Your task to perform on an android device: search for starred emails in the gmail app Image 0: 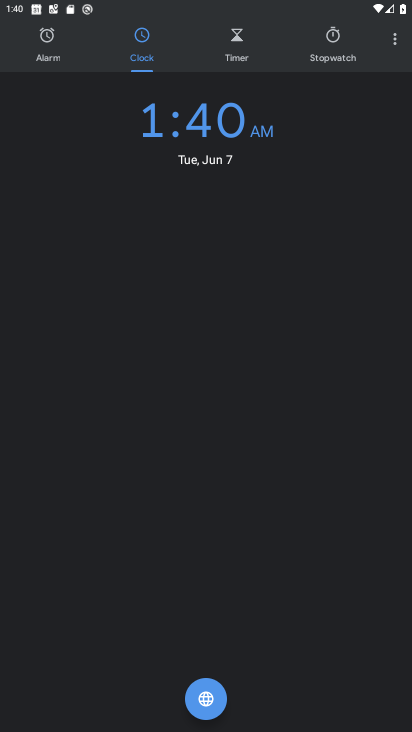
Step 0: press home button
Your task to perform on an android device: search for starred emails in the gmail app Image 1: 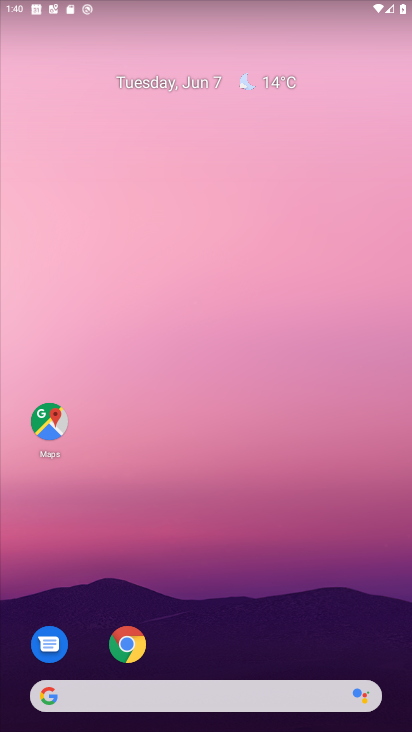
Step 1: drag from (233, 625) to (273, 41)
Your task to perform on an android device: search for starred emails in the gmail app Image 2: 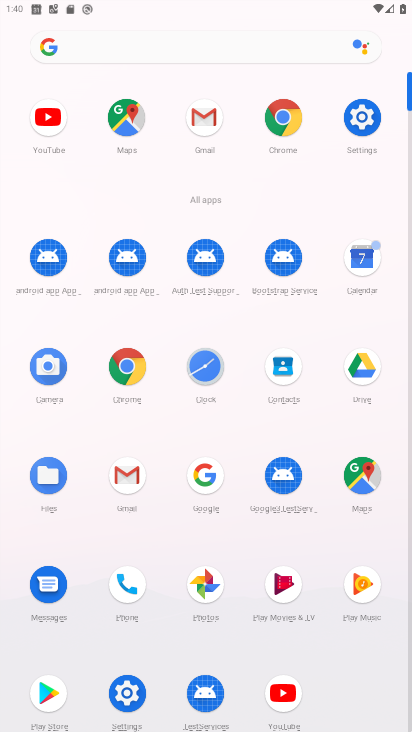
Step 2: click (190, 122)
Your task to perform on an android device: search for starred emails in the gmail app Image 3: 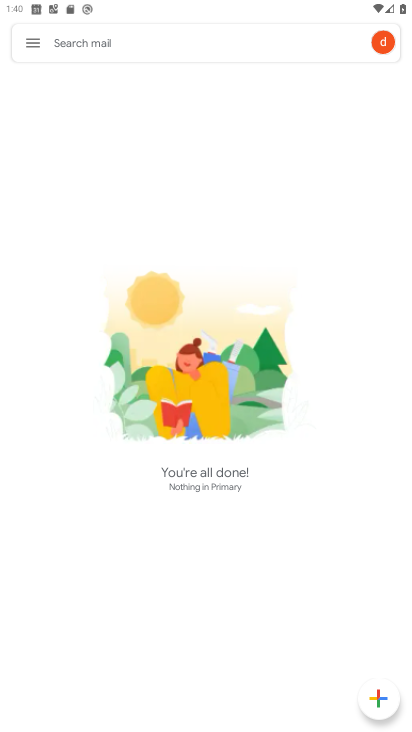
Step 3: click (33, 50)
Your task to perform on an android device: search for starred emails in the gmail app Image 4: 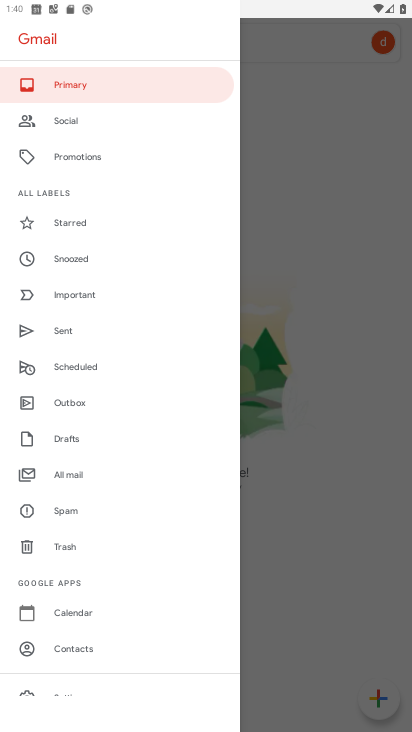
Step 4: click (90, 230)
Your task to perform on an android device: search for starred emails in the gmail app Image 5: 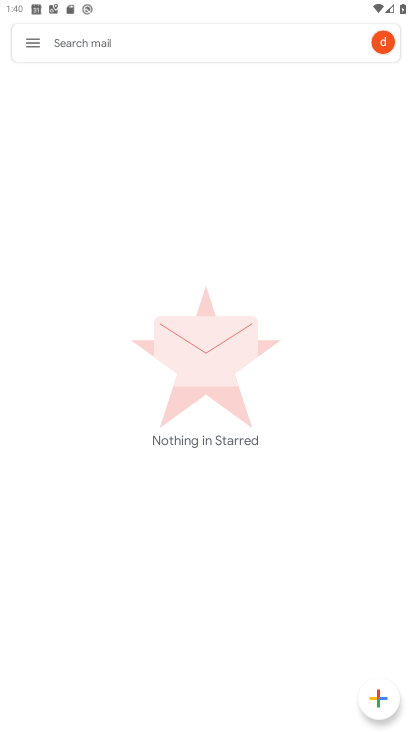
Step 5: task complete